Your task to perform on an android device: Turn on the flashlight Image 0: 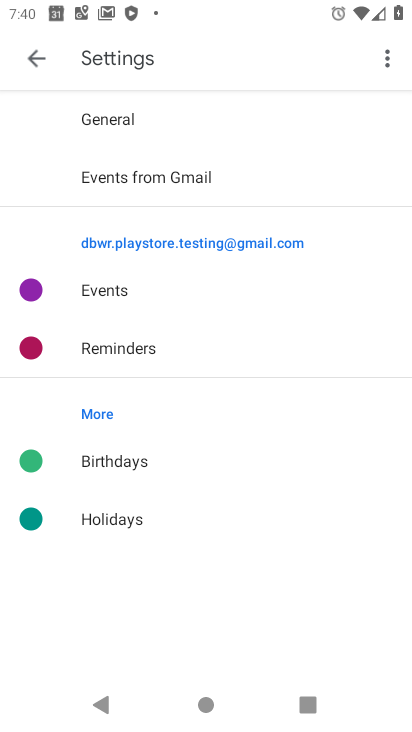
Step 0: press home button
Your task to perform on an android device: Turn on the flashlight Image 1: 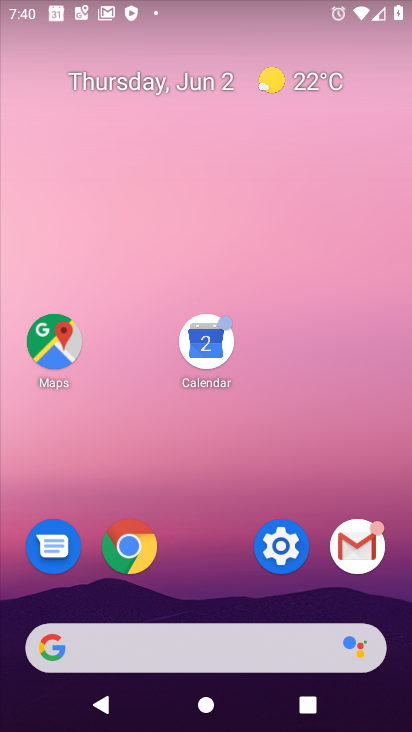
Step 1: click (266, 556)
Your task to perform on an android device: Turn on the flashlight Image 2: 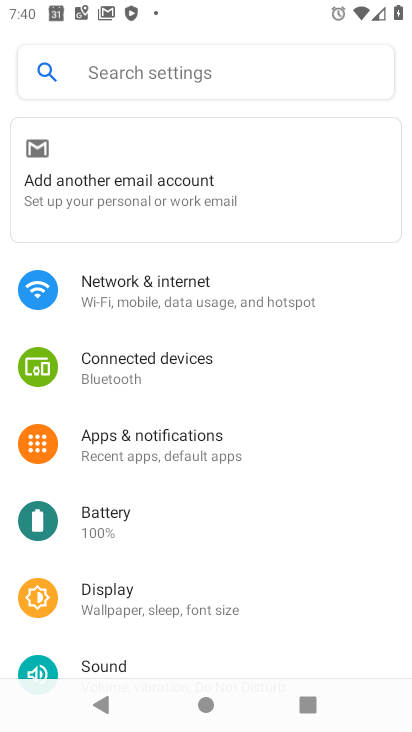
Step 2: click (143, 78)
Your task to perform on an android device: Turn on the flashlight Image 3: 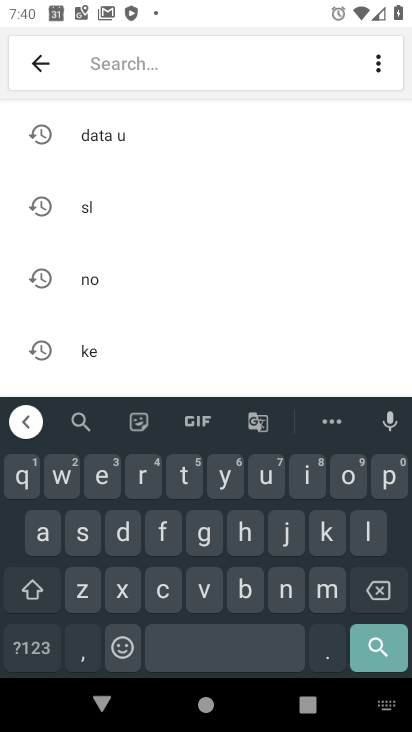
Step 3: click (160, 533)
Your task to perform on an android device: Turn on the flashlight Image 4: 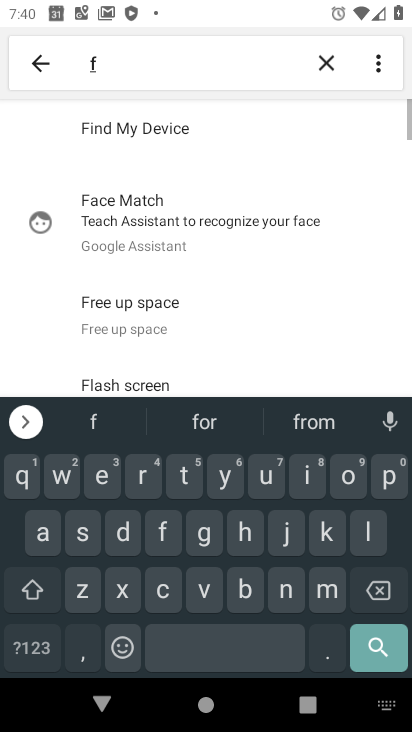
Step 4: click (374, 537)
Your task to perform on an android device: Turn on the flashlight Image 5: 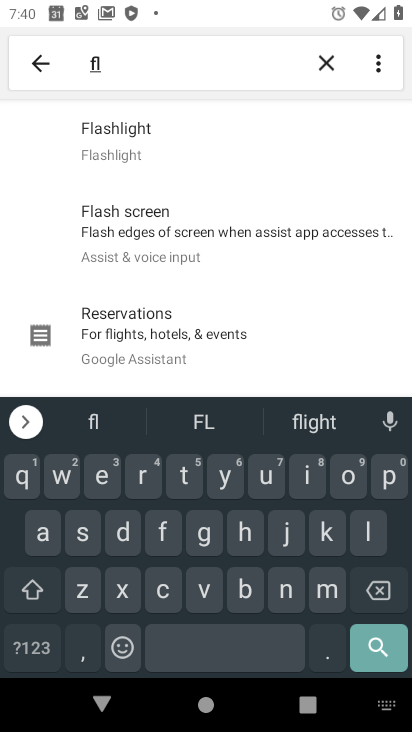
Step 5: click (140, 156)
Your task to perform on an android device: Turn on the flashlight Image 6: 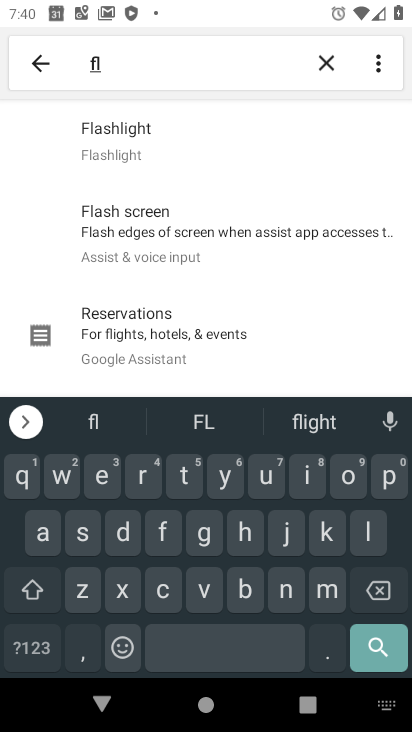
Step 6: click (140, 156)
Your task to perform on an android device: Turn on the flashlight Image 7: 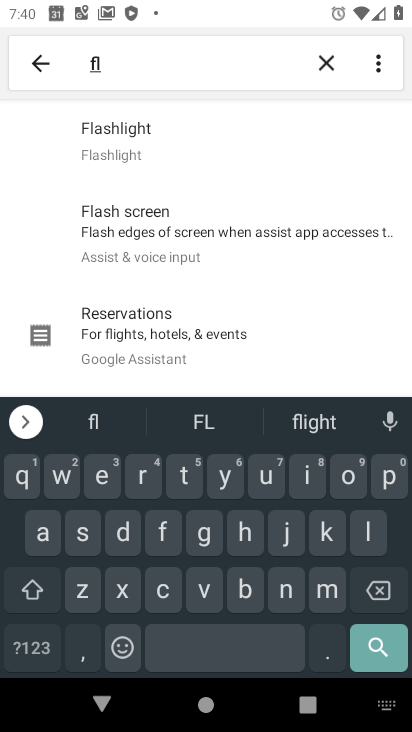
Step 7: task complete